Your task to perform on an android device: Go to Google maps Image 0: 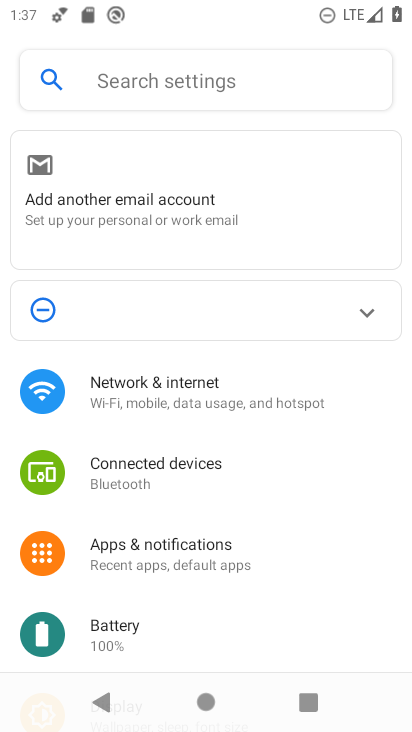
Step 0: press home button
Your task to perform on an android device: Go to Google maps Image 1: 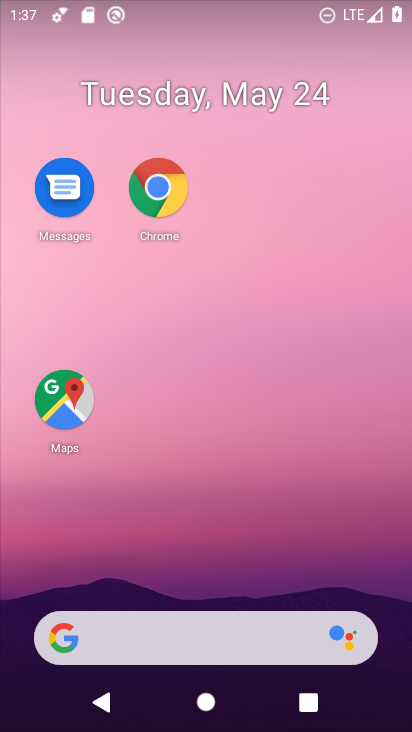
Step 1: click (51, 393)
Your task to perform on an android device: Go to Google maps Image 2: 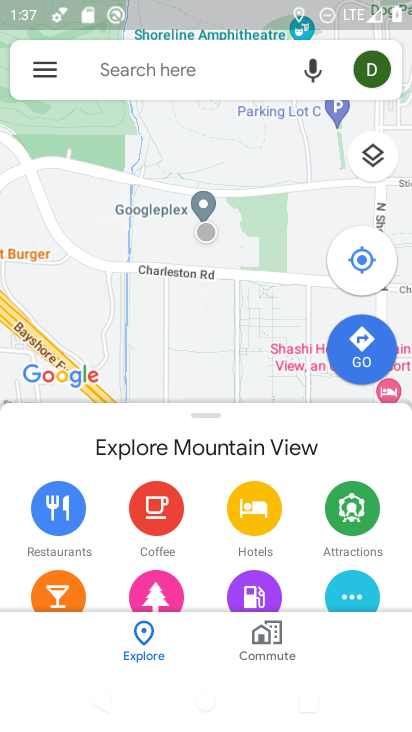
Step 2: task complete